Your task to perform on an android device: open a bookmark in the chrome app Image 0: 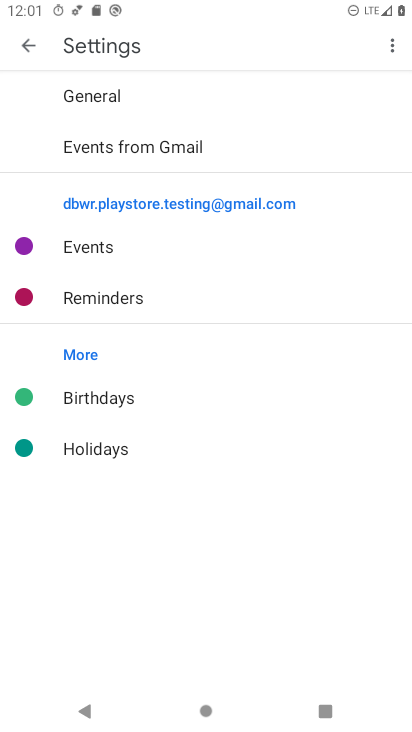
Step 0: press home button
Your task to perform on an android device: open a bookmark in the chrome app Image 1: 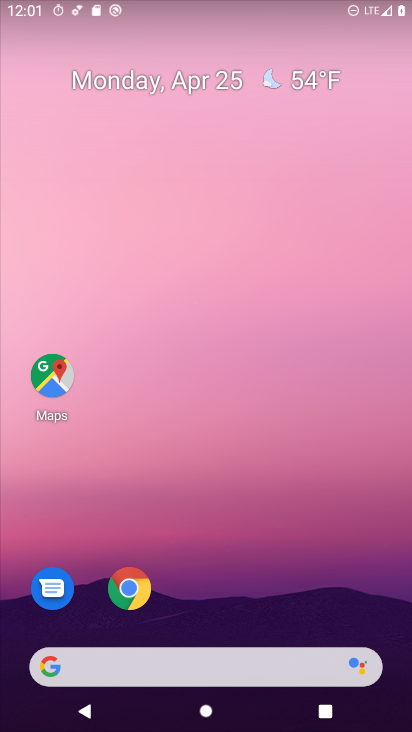
Step 1: drag from (206, 639) to (215, 115)
Your task to perform on an android device: open a bookmark in the chrome app Image 2: 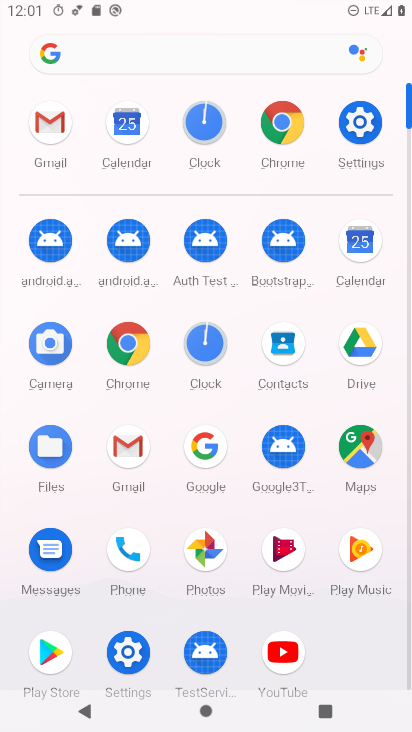
Step 2: click (114, 344)
Your task to perform on an android device: open a bookmark in the chrome app Image 3: 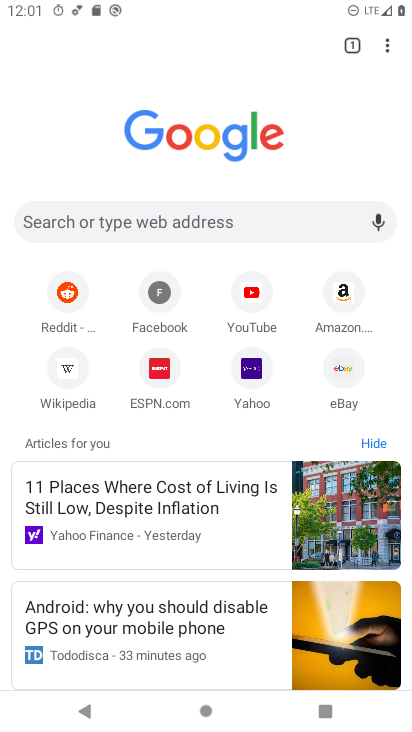
Step 3: click (388, 41)
Your task to perform on an android device: open a bookmark in the chrome app Image 4: 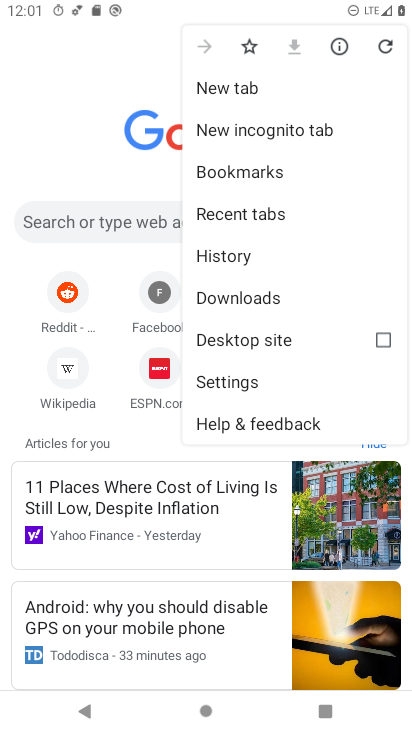
Step 4: click (248, 190)
Your task to perform on an android device: open a bookmark in the chrome app Image 5: 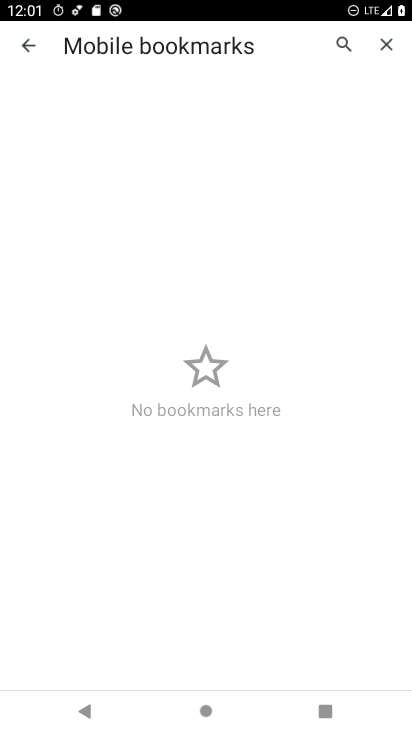
Step 5: click (15, 42)
Your task to perform on an android device: open a bookmark in the chrome app Image 6: 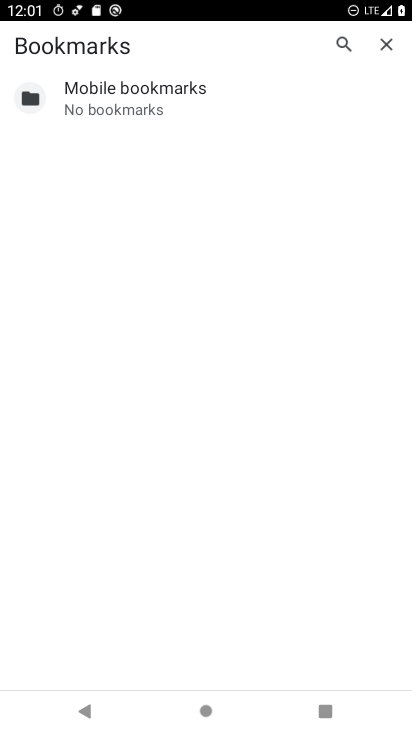
Step 6: task complete